Your task to perform on an android device: Open calendar and show me the third week of next month Image 0: 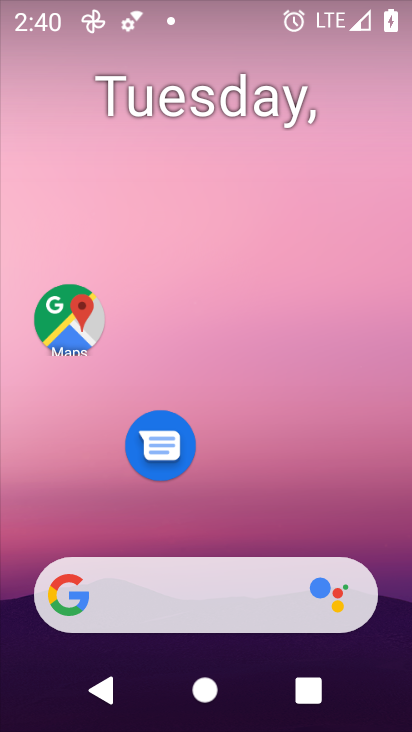
Step 0: press home button
Your task to perform on an android device: Open calendar and show me the third week of next month Image 1: 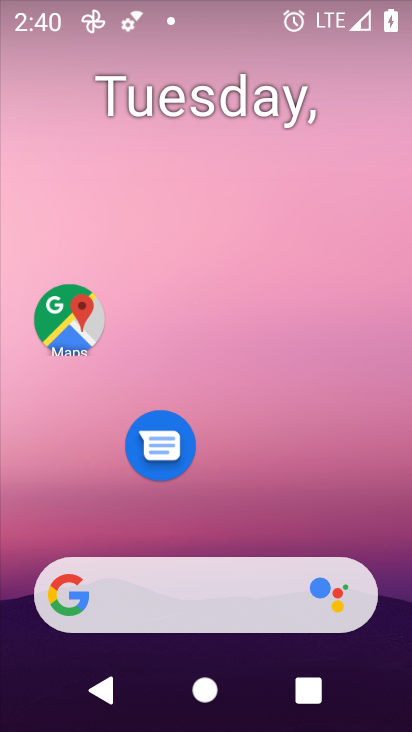
Step 1: drag from (280, 478) to (153, 72)
Your task to perform on an android device: Open calendar and show me the third week of next month Image 2: 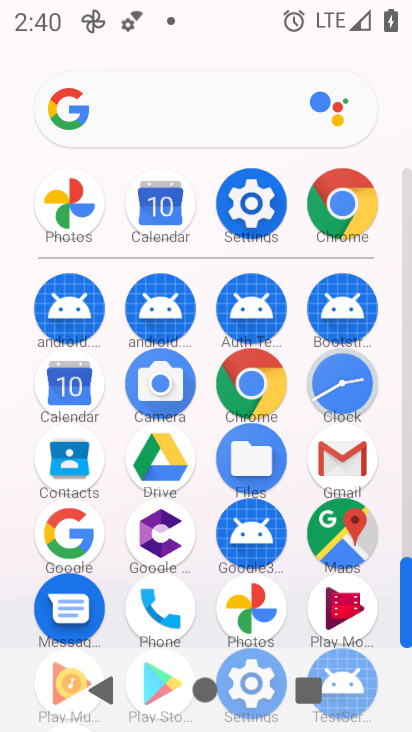
Step 2: click (53, 395)
Your task to perform on an android device: Open calendar and show me the third week of next month Image 3: 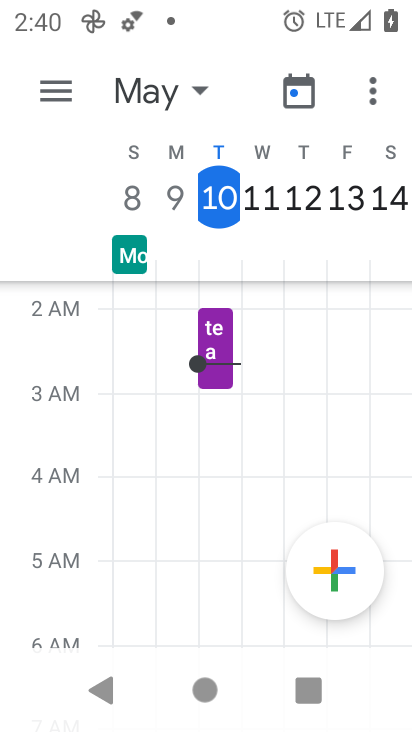
Step 3: click (198, 84)
Your task to perform on an android device: Open calendar and show me the third week of next month Image 4: 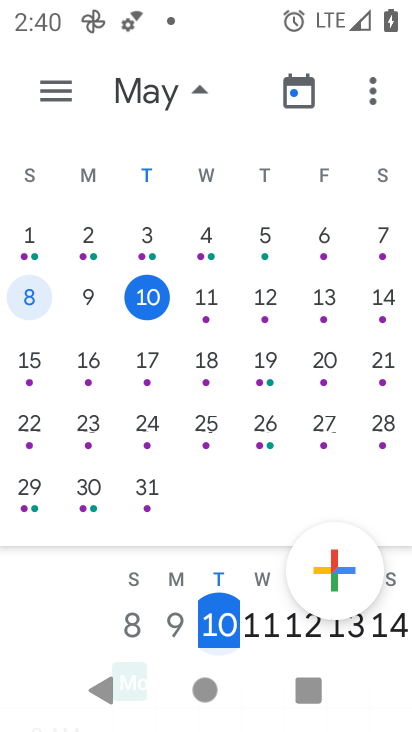
Step 4: drag from (377, 378) to (12, 367)
Your task to perform on an android device: Open calendar and show me the third week of next month Image 5: 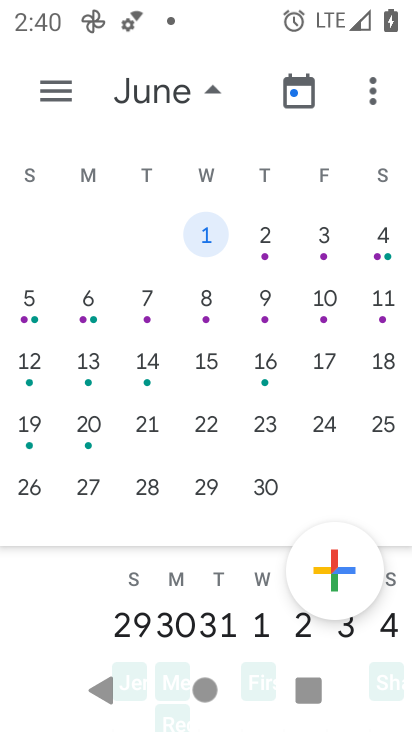
Step 5: click (201, 356)
Your task to perform on an android device: Open calendar and show me the third week of next month Image 6: 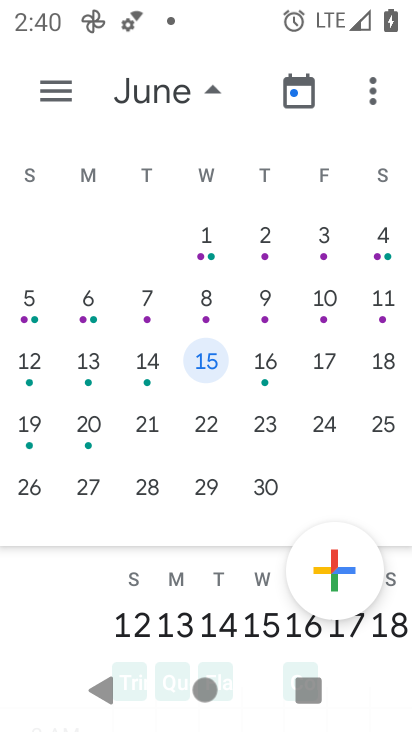
Step 6: task complete